Your task to perform on an android device: Show me recent news Image 0: 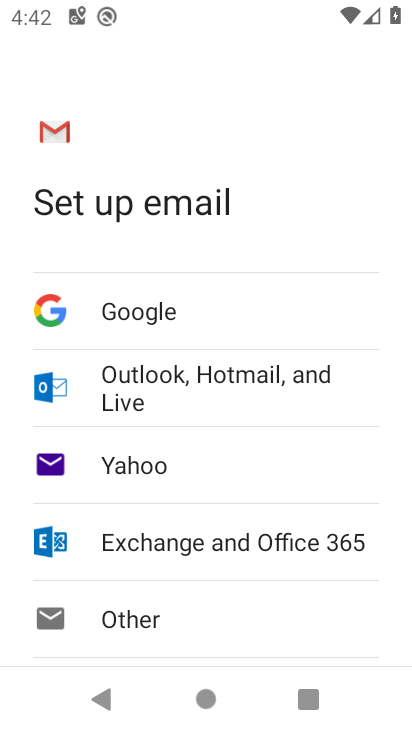
Step 0: press home button
Your task to perform on an android device: Show me recent news Image 1: 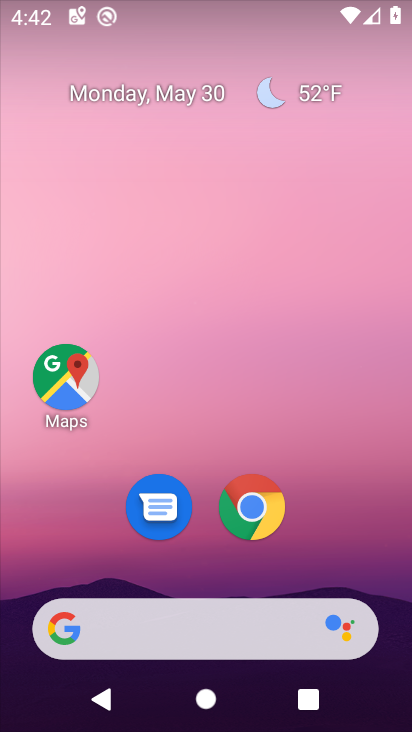
Step 1: click (289, 525)
Your task to perform on an android device: Show me recent news Image 2: 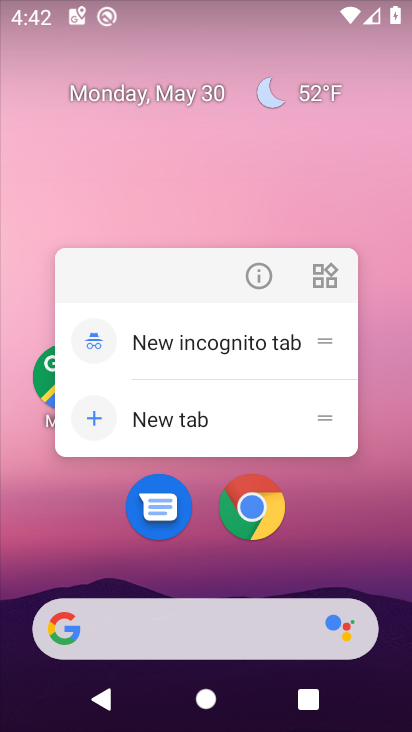
Step 2: click (289, 525)
Your task to perform on an android device: Show me recent news Image 3: 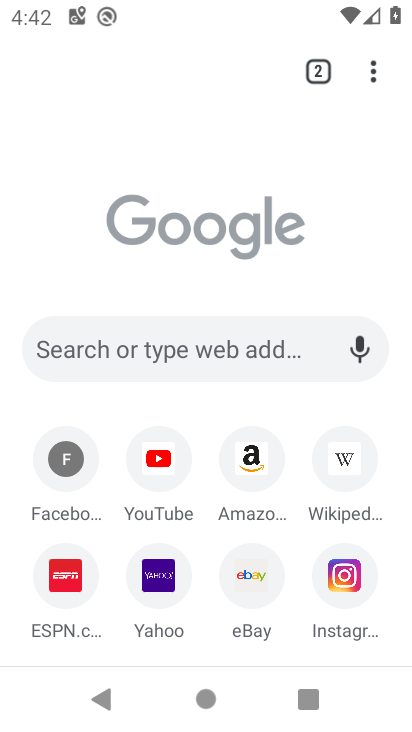
Step 3: click (232, 329)
Your task to perform on an android device: Show me recent news Image 4: 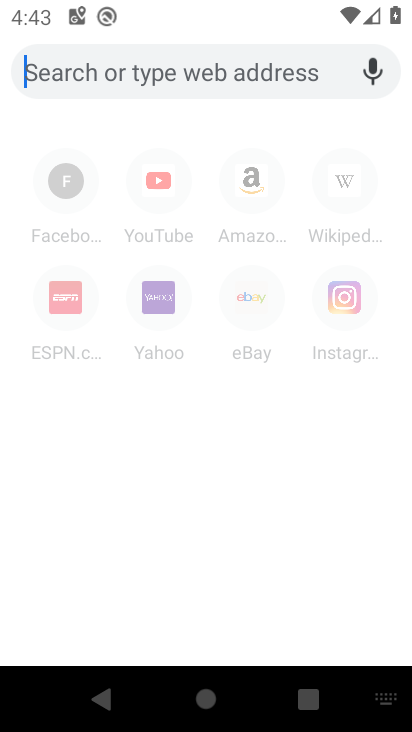
Step 4: type "Show me recent news"
Your task to perform on an android device: Show me recent news Image 5: 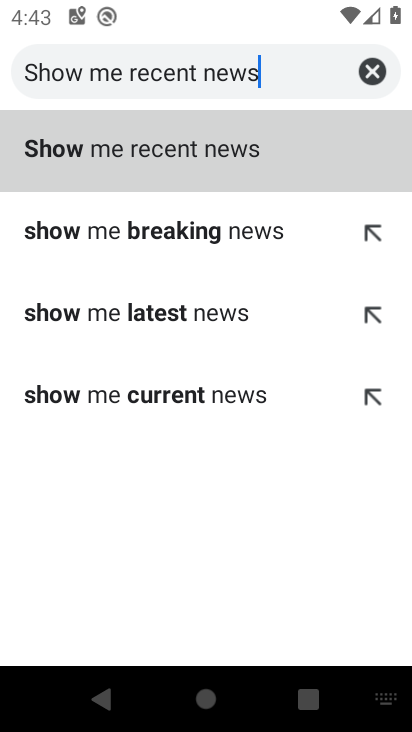
Step 5: click (253, 164)
Your task to perform on an android device: Show me recent news Image 6: 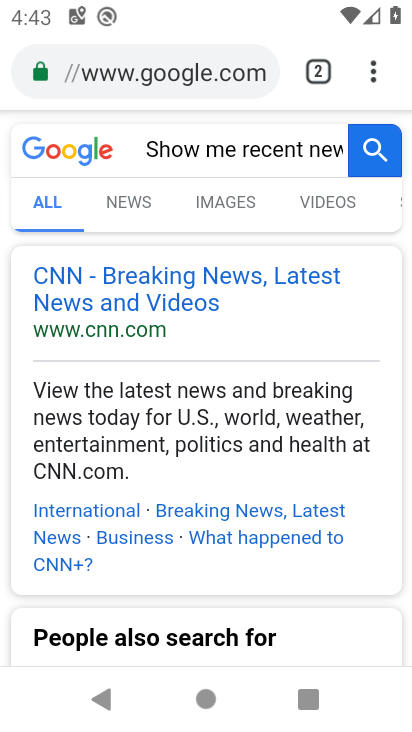
Step 6: task complete